Your task to perform on an android device: Open the map Image 0: 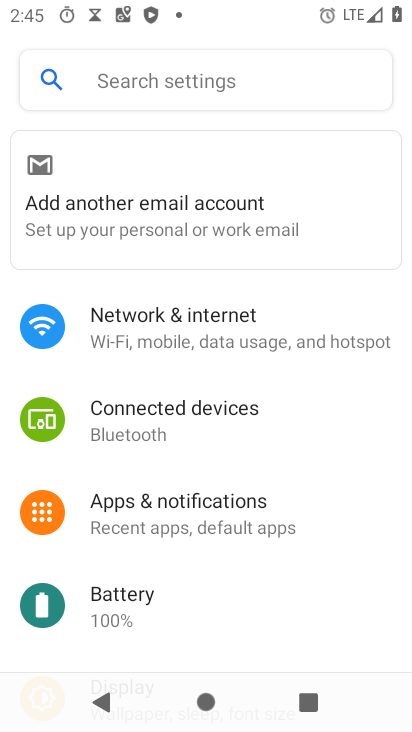
Step 0: press back button
Your task to perform on an android device: Open the map Image 1: 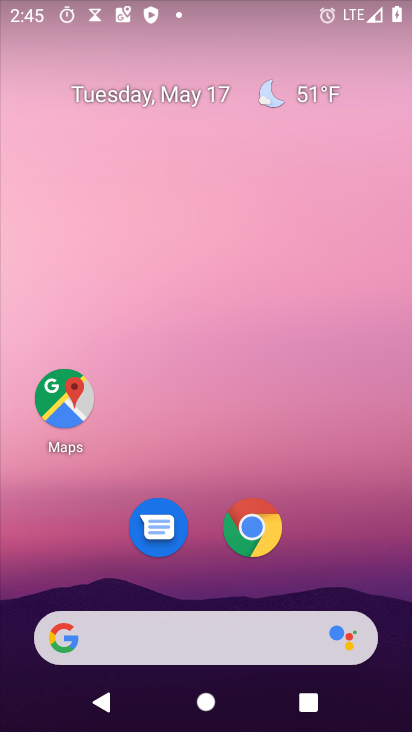
Step 1: click (63, 399)
Your task to perform on an android device: Open the map Image 2: 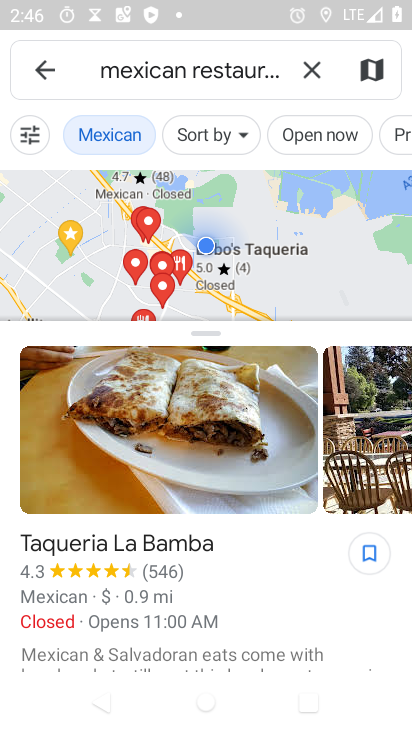
Step 2: task complete